Your task to perform on an android device: turn off sleep mode Image 0: 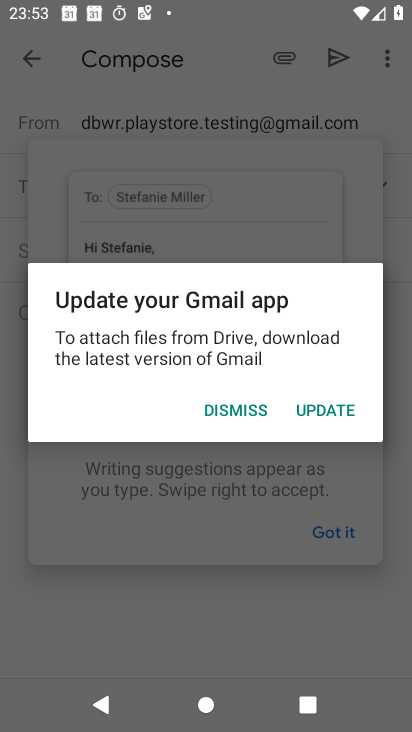
Step 0: press home button
Your task to perform on an android device: turn off sleep mode Image 1: 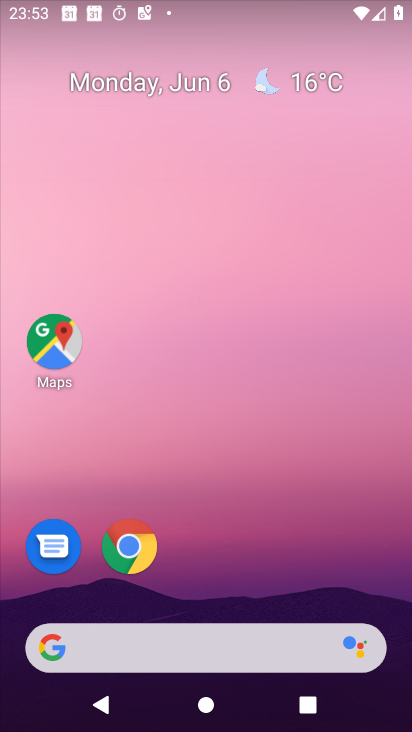
Step 1: drag from (188, 610) to (321, 45)
Your task to perform on an android device: turn off sleep mode Image 2: 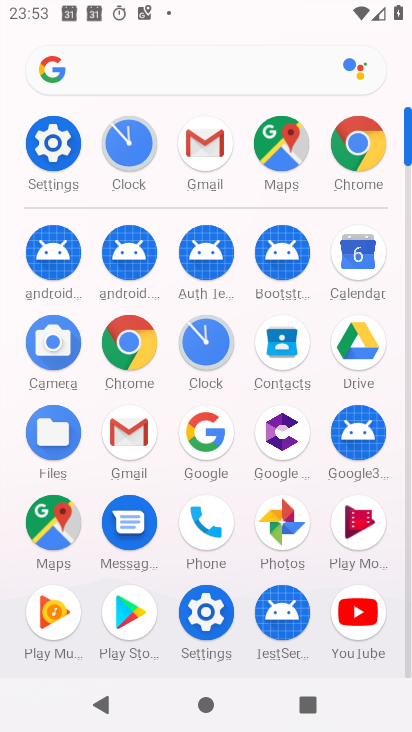
Step 2: click (44, 158)
Your task to perform on an android device: turn off sleep mode Image 3: 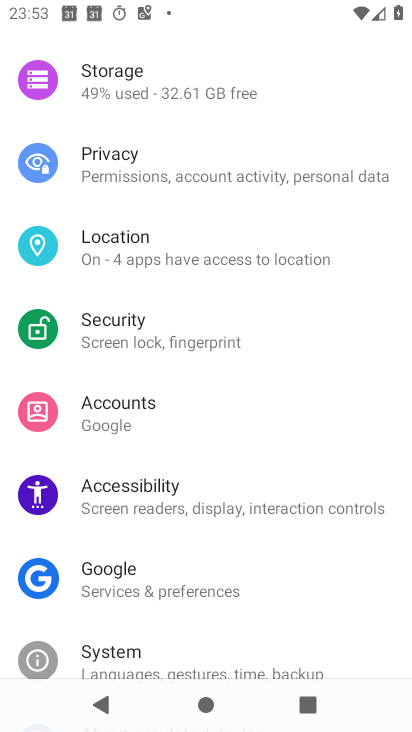
Step 3: drag from (143, 134) to (117, 603)
Your task to perform on an android device: turn off sleep mode Image 4: 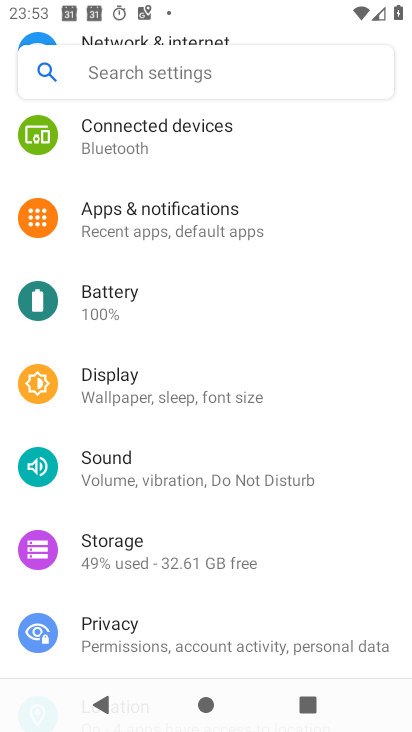
Step 4: click (163, 74)
Your task to perform on an android device: turn off sleep mode Image 5: 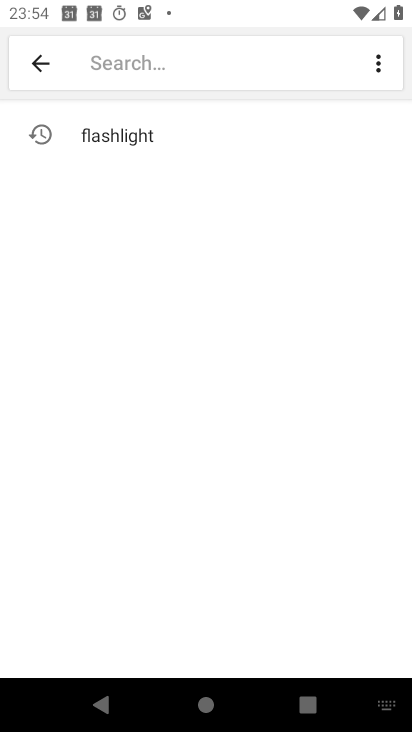
Step 5: type "sleep mode"
Your task to perform on an android device: turn off sleep mode Image 6: 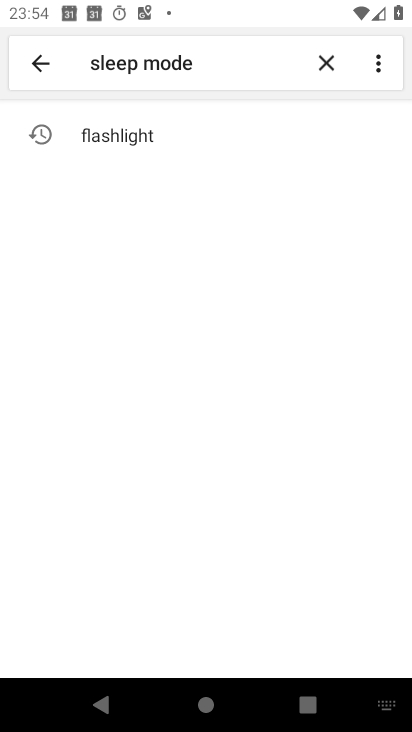
Step 6: click (189, 225)
Your task to perform on an android device: turn off sleep mode Image 7: 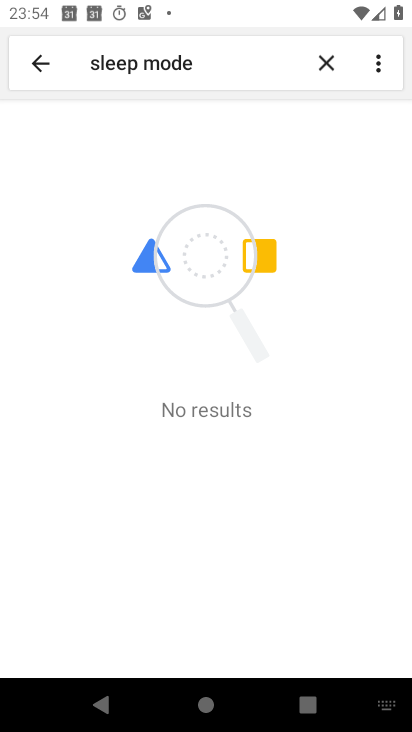
Step 7: task complete